Your task to perform on an android device: Open Maps and search for coffee Image 0: 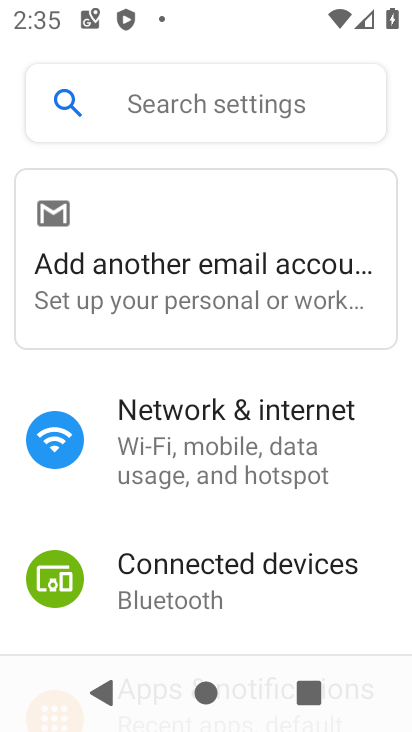
Step 0: press back button
Your task to perform on an android device: Open Maps and search for coffee Image 1: 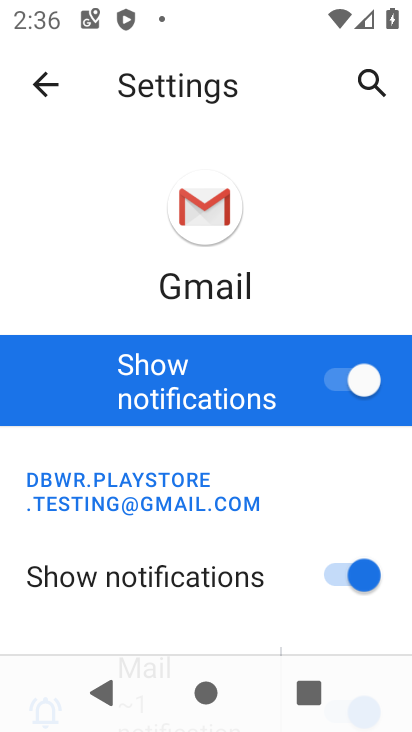
Step 1: press back button
Your task to perform on an android device: Open Maps and search for coffee Image 2: 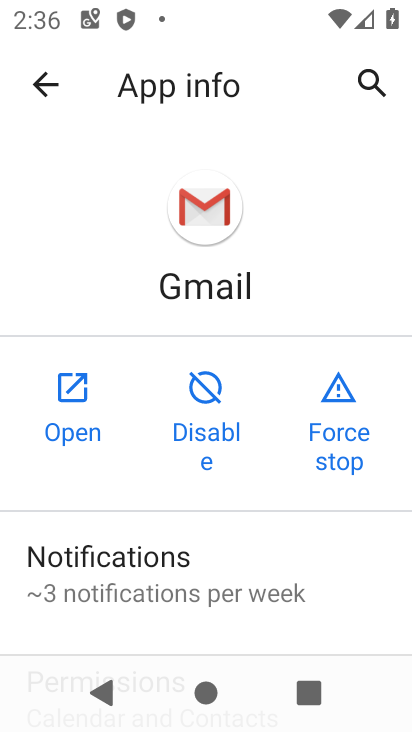
Step 2: press home button
Your task to perform on an android device: Open Maps and search for coffee Image 3: 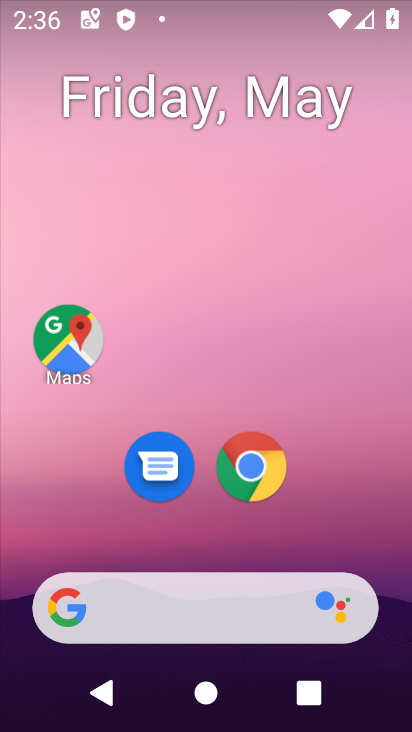
Step 3: click (56, 347)
Your task to perform on an android device: Open Maps and search for coffee Image 4: 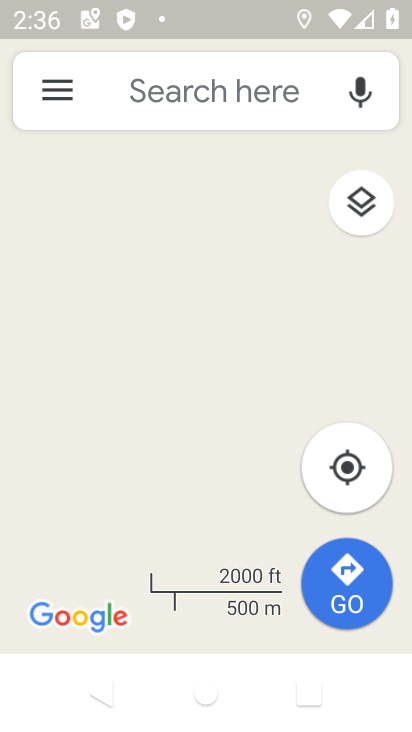
Step 4: click (152, 89)
Your task to perform on an android device: Open Maps and search for coffee Image 5: 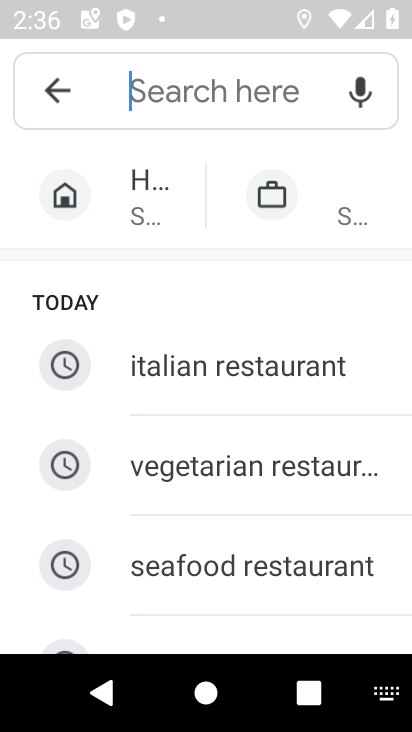
Step 5: type "coffee"
Your task to perform on an android device: Open Maps and search for coffee Image 6: 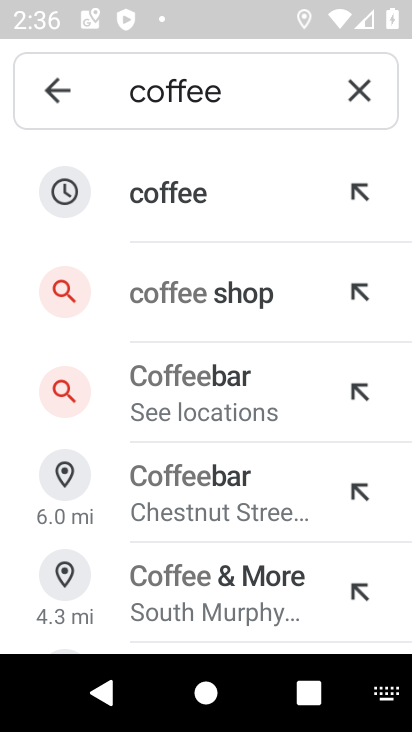
Step 6: click (164, 190)
Your task to perform on an android device: Open Maps and search for coffee Image 7: 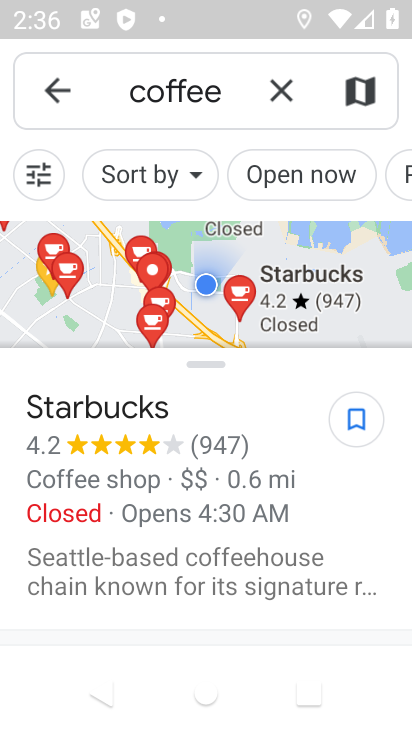
Step 7: task complete